Your task to perform on an android device: Do I have any events this weekend? Image 0: 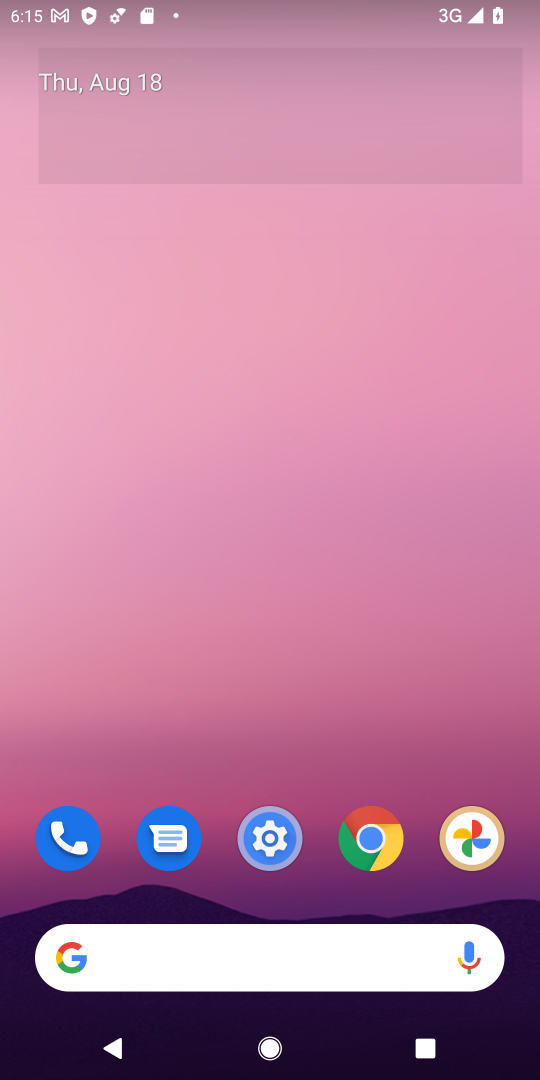
Step 0: press home button
Your task to perform on an android device: Do I have any events this weekend? Image 1: 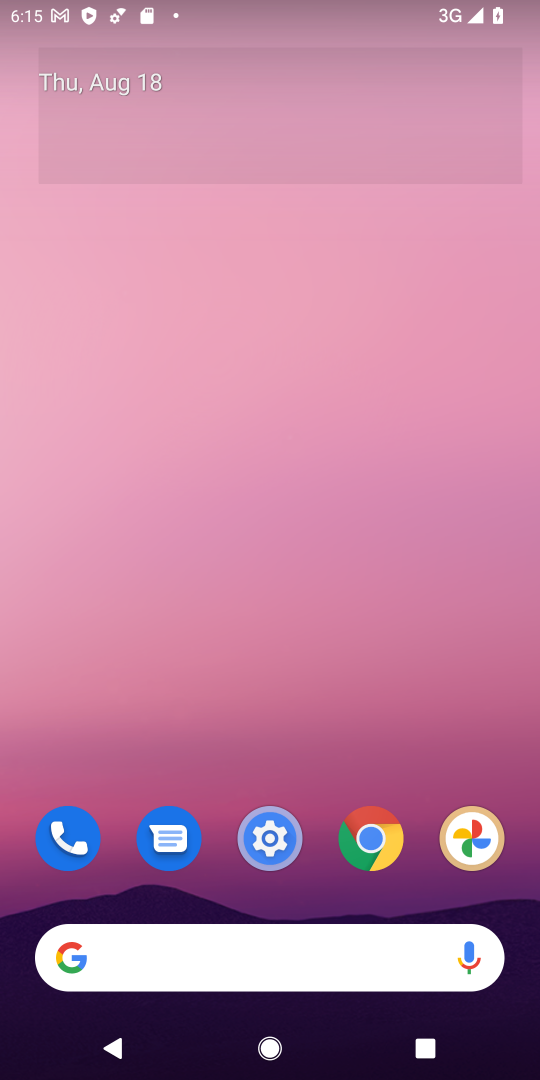
Step 1: drag from (314, 900) to (305, 205)
Your task to perform on an android device: Do I have any events this weekend? Image 2: 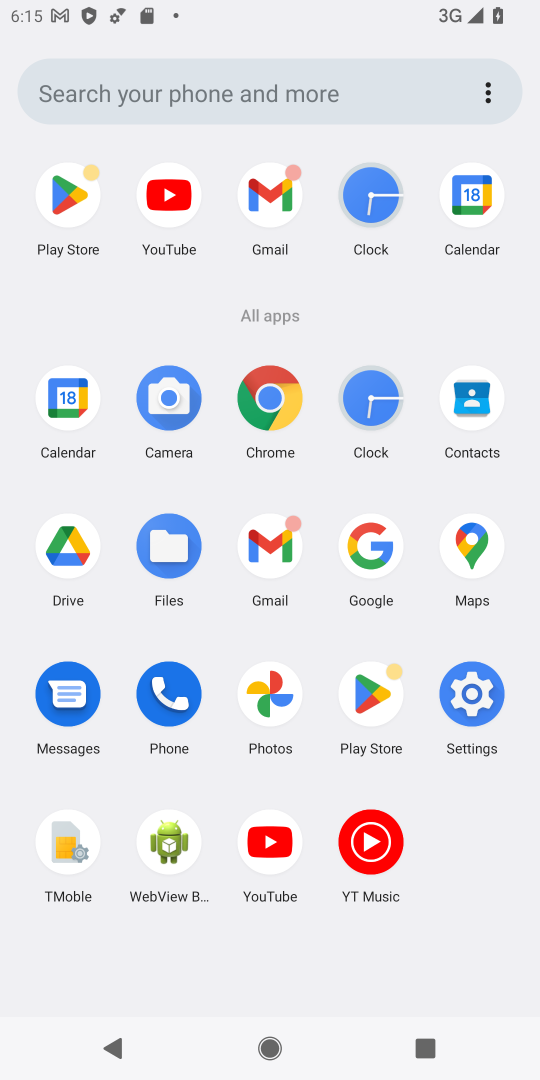
Step 2: click (73, 411)
Your task to perform on an android device: Do I have any events this weekend? Image 3: 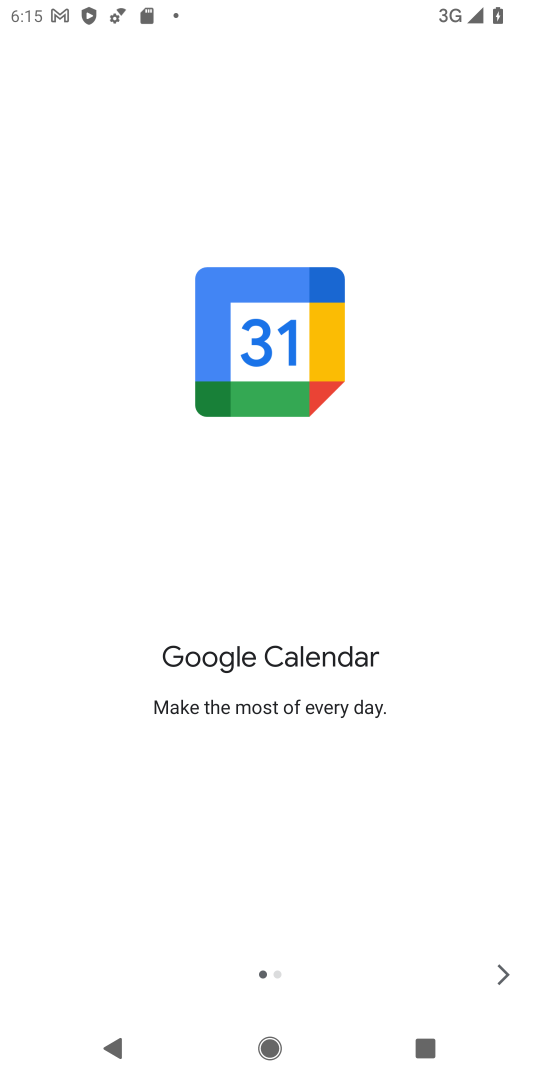
Step 3: click (506, 969)
Your task to perform on an android device: Do I have any events this weekend? Image 4: 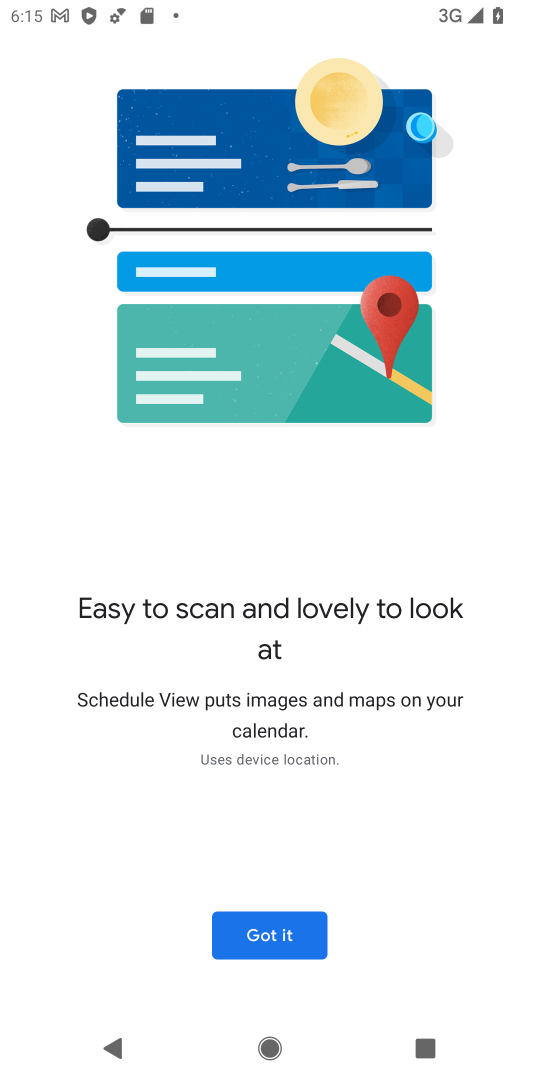
Step 4: click (299, 936)
Your task to perform on an android device: Do I have any events this weekend? Image 5: 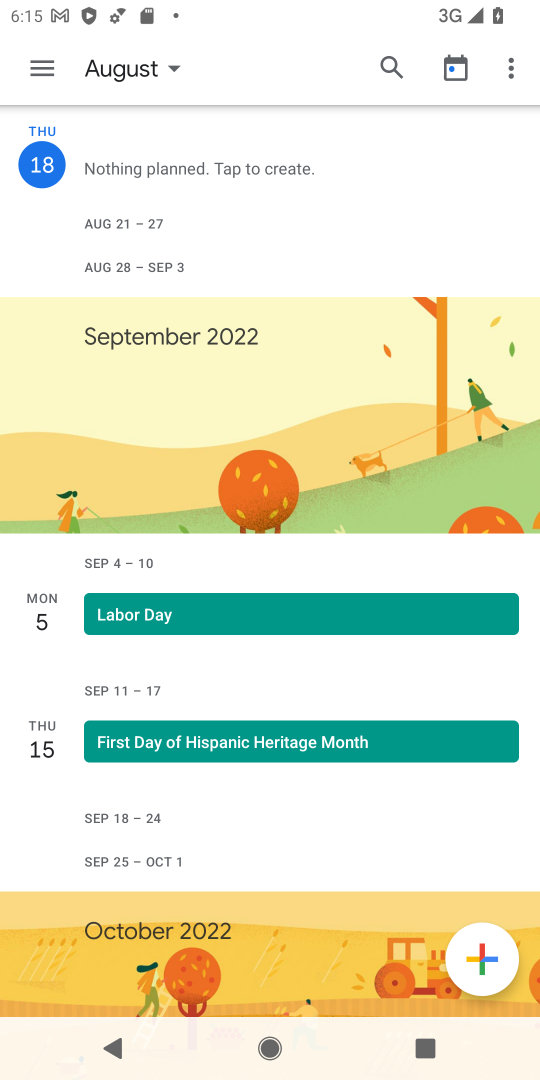
Step 5: click (41, 59)
Your task to perform on an android device: Do I have any events this weekend? Image 6: 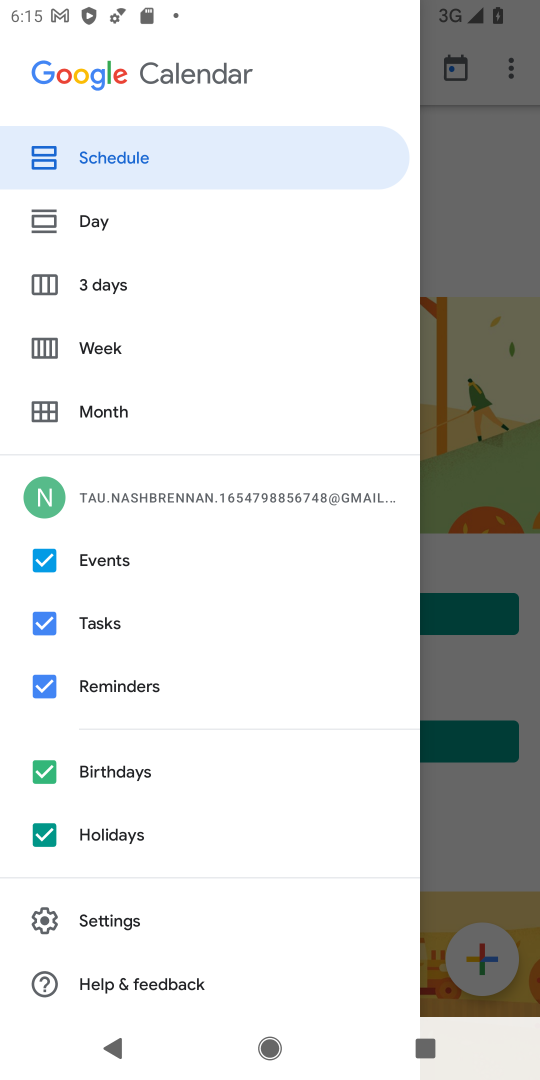
Step 6: click (96, 346)
Your task to perform on an android device: Do I have any events this weekend? Image 7: 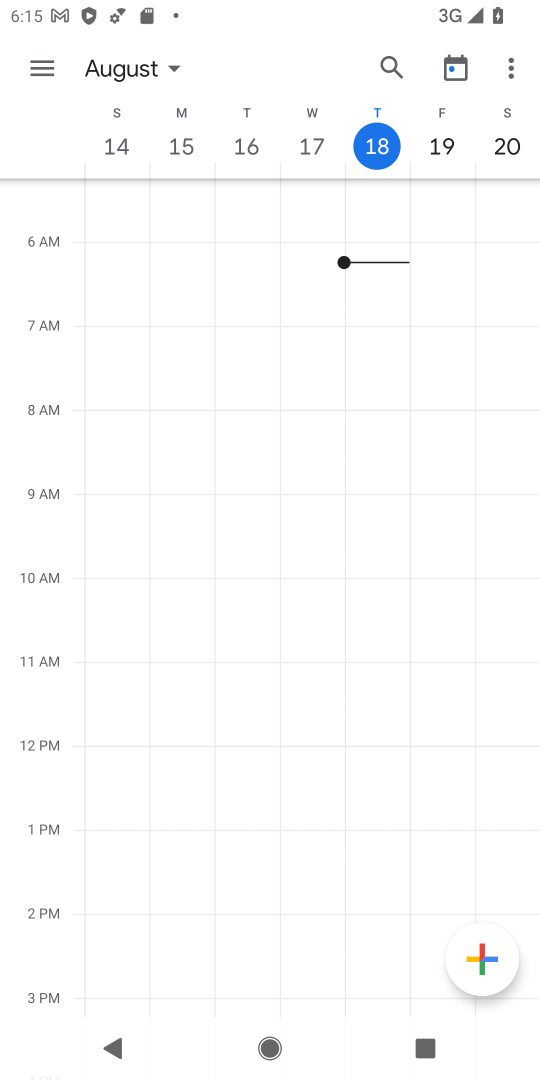
Step 7: task complete